Your task to perform on an android device: delete location history Image 0: 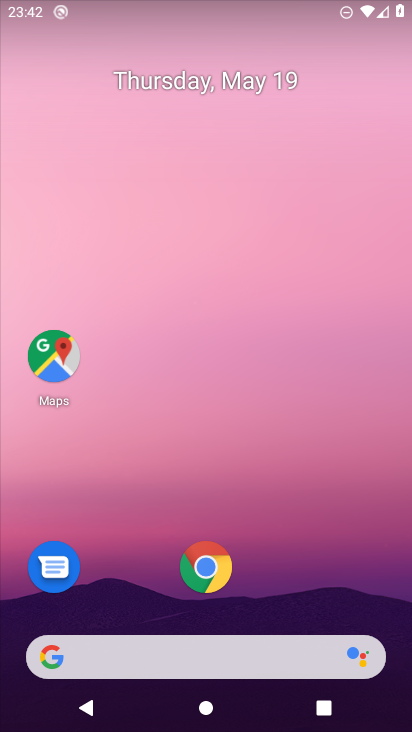
Step 0: drag from (264, 607) to (306, 114)
Your task to perform on an android device: delete location history Image 1: 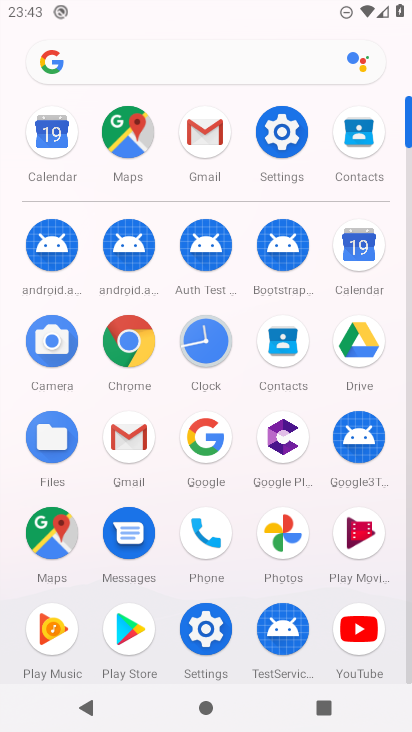
Step 1: click (124, 143)
Your task to perform on an android device: delete location history Image 2: 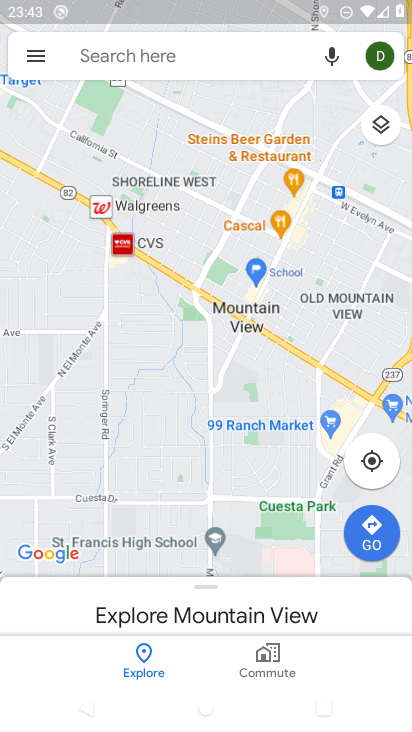
Step 2: click (35, 52)
Your task to perform on an android device: delete location history Image 3: 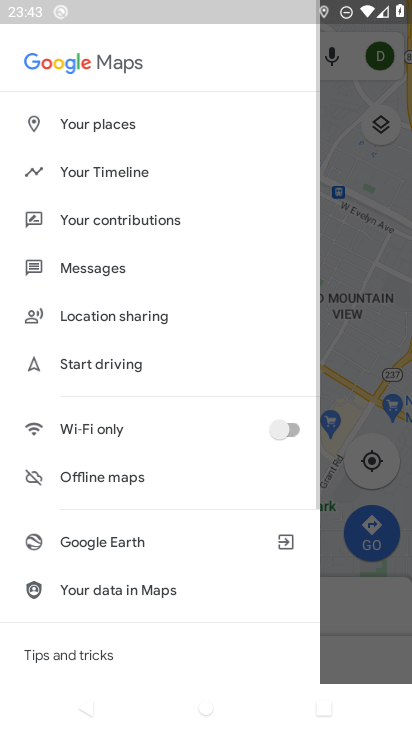
Step 3: click (117, 174)
Your task to perform on an android device: delete location history Image 4: 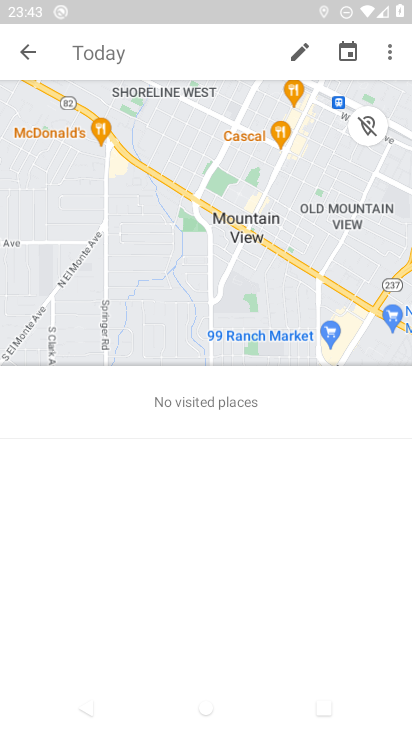
Step 4: click (386, 50)
Your task to perform on an android device: delete location history Image 5: 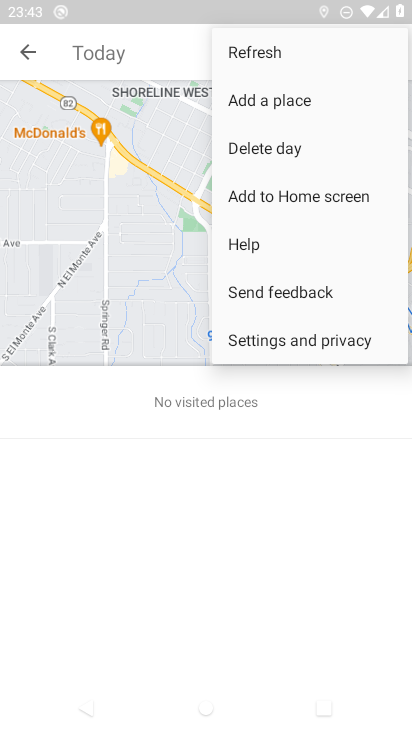
Step 5: click (312, 339)
Your task to perform on an android device: delete location history Image 6: 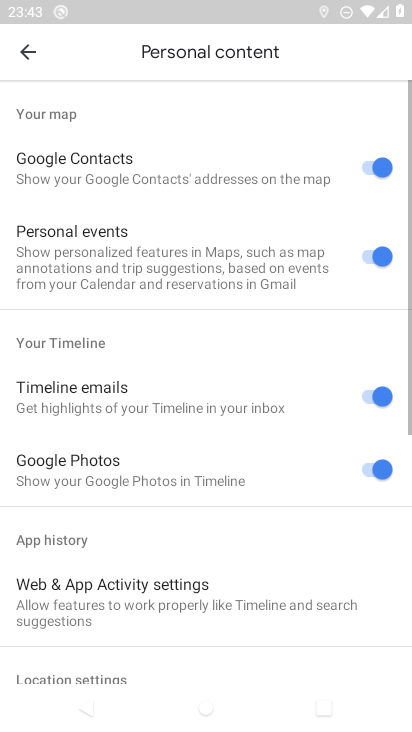
Step 6: drag from (170, 618) to (257, 153)
Your task to perform on an android device: delete location history Image 7: 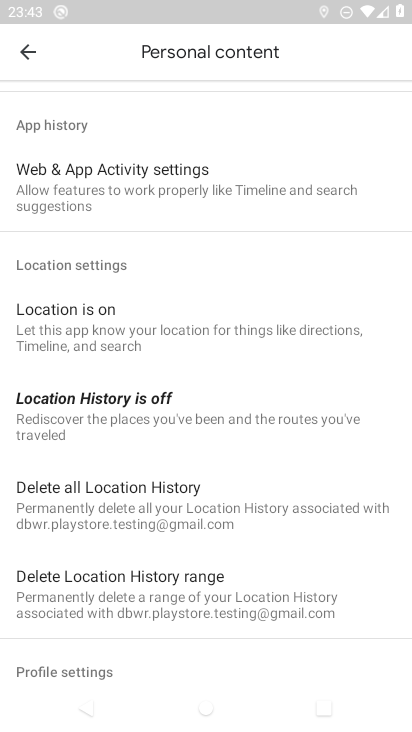
Step 7: click (179, 508)
Your task to perform on an android device: delete location history Image 8: 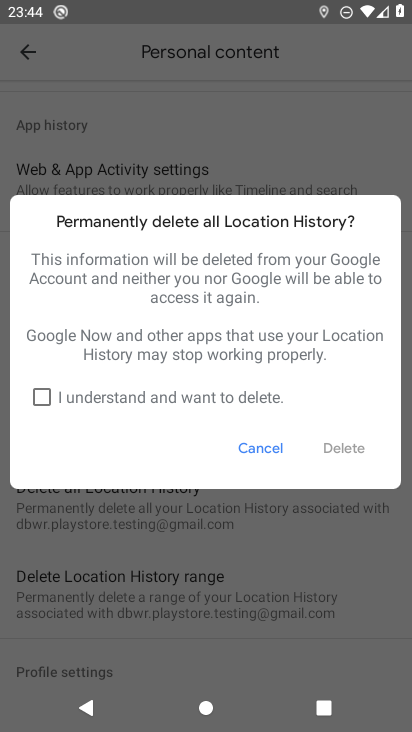
Step 8: click (42, 395)
Your task to perform on an android device: delete location history Image 9: 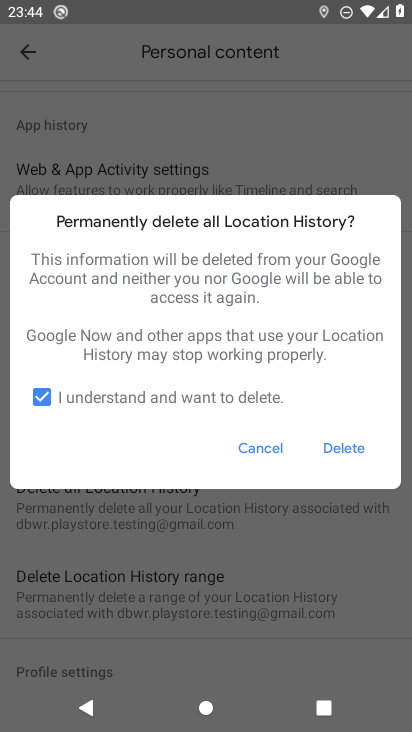
Step 9: click (355, 446)
Your task to perform on an android device: delete location history Image 10: 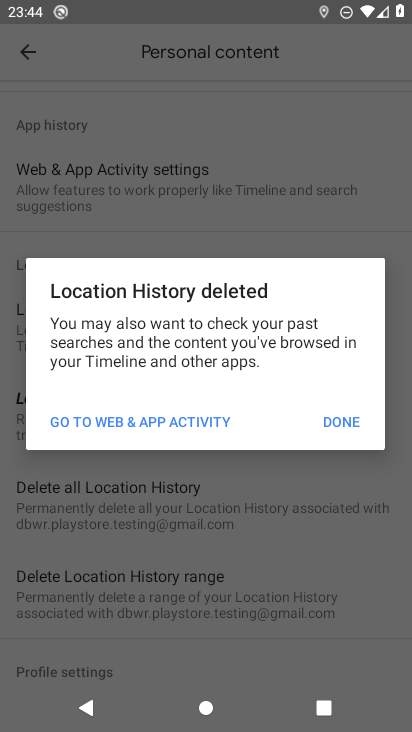
Step 10: click (341, 418)
Your task to perform on an android device: delete location history Image 11: 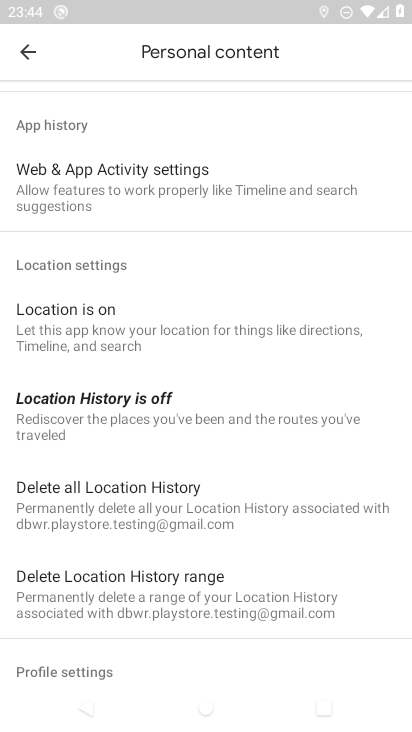
Step 11: task complete